Your task to perform on an android device: Go to Amazon Image 0: 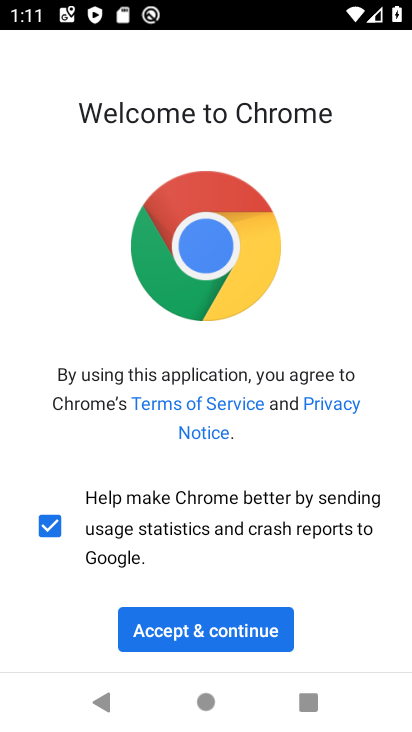
Step 0: click (247, 636)
Your task to perform on an android device: Go to Amazon Image 1: 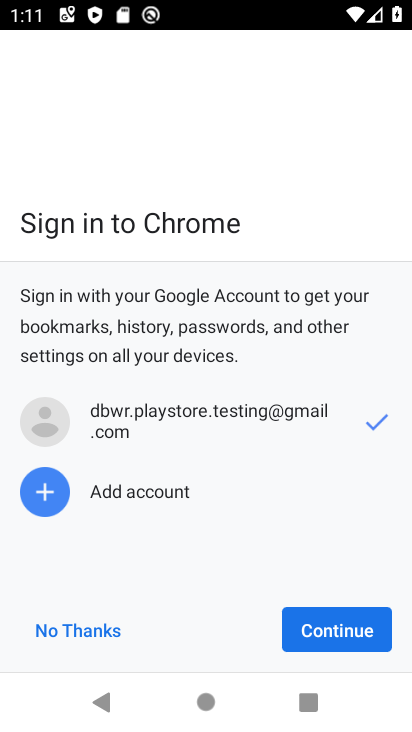
Step 1: click (336, 622)
Your task to perform on an android device: Go to Amazon Image 2: 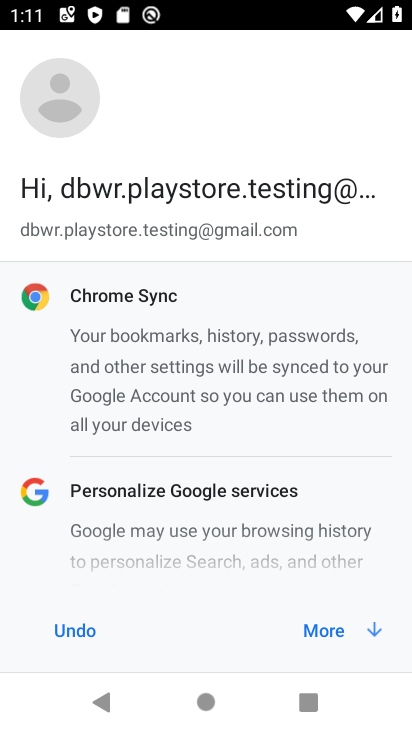
Step 2: click (335, 629)
Your task to perform on an android device: Go to Amazon Image 3: 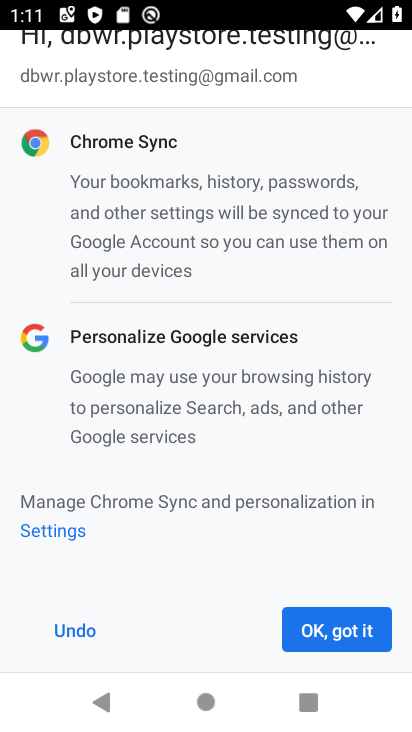
Step 3: click (335, 629)
Your task to perform on an android device: Go to Amazon Image 4: 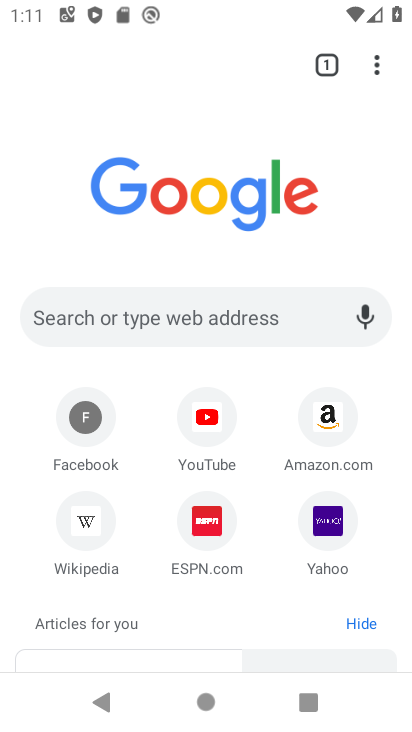
Step 4: click (326, 430)
Your task to perform on an android device: Go to Amazon Image 5: 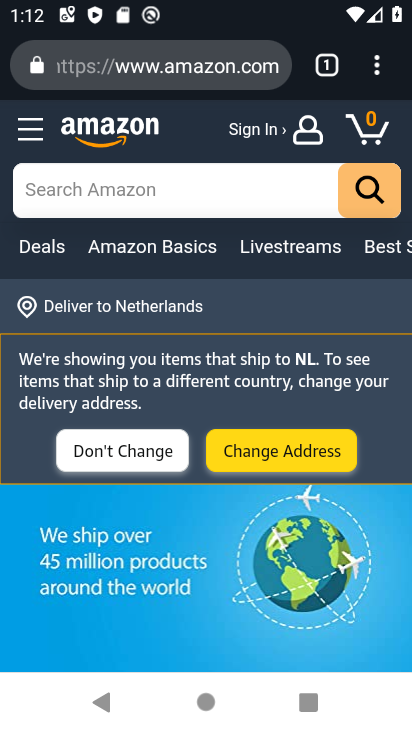
Step 5: task complete